Your task to perform on an android device: Go to display settings Image 0: 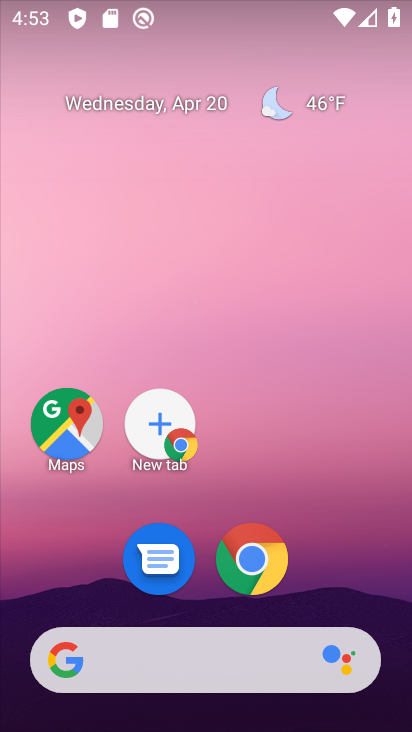
Step 0: drag from (354, 570) to (283, 192)
Your task to perform on an android device: Go to display settings Image 1: 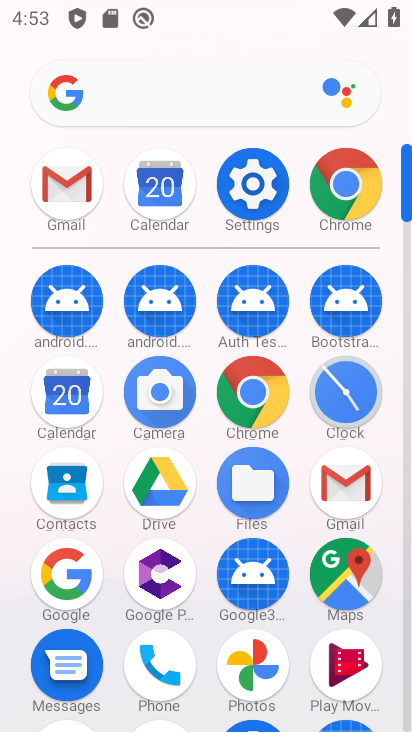
Step 1: click (255, 196)
Your task to perform on an android device: Go to display settings Image 2: 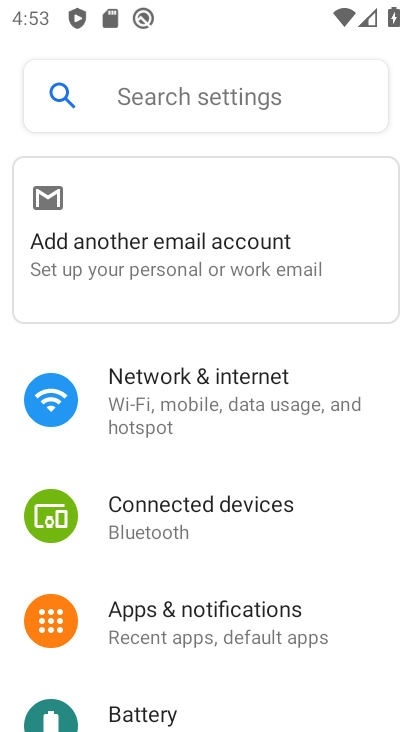
Step 2: drag from (299, 548) to (297, 247)
Your task to perform on an android device: Go to display settings Image 3: 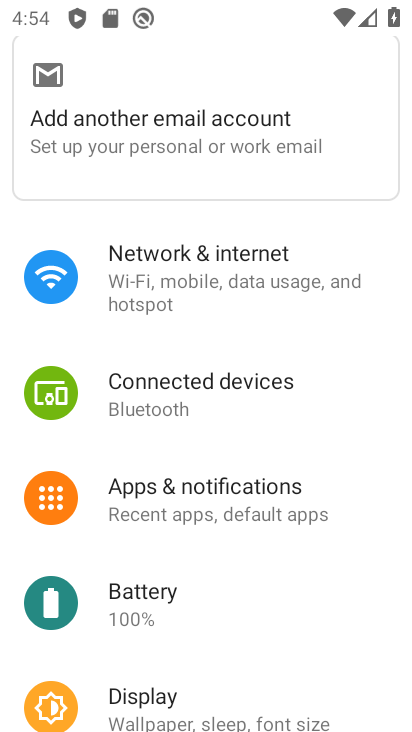
Step 3: click (133, 714)
Your task to perform on an android device: Go to display settings Image 4: 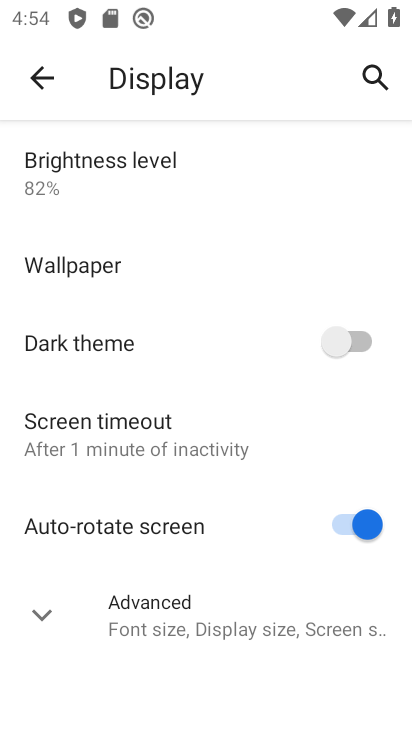
Step 4: task complete